Your task to perform on an android device: toggle location history Image 0: 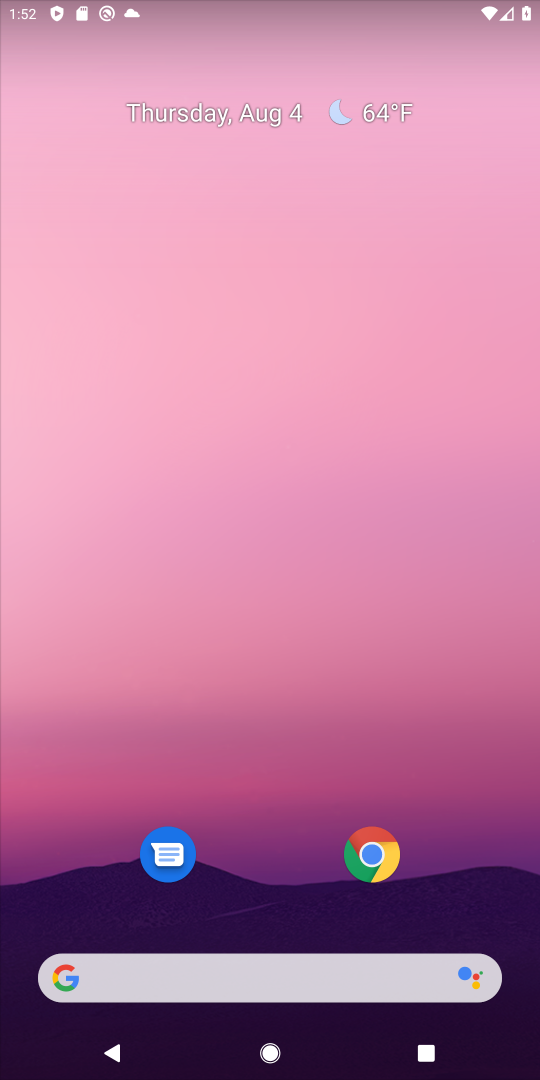
Step 0: drag from (375, 731) to (395, 311)
Your task to perform on an android device: toggle location history Image 1: 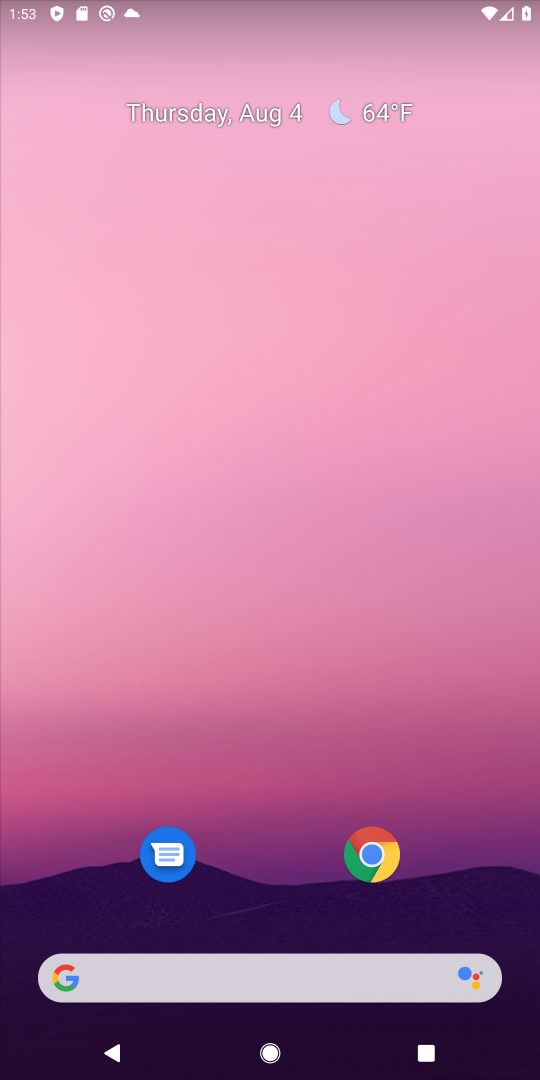
Step 1: click (375, 855)
Your task to perform on an android device: toggle location history Image 2: 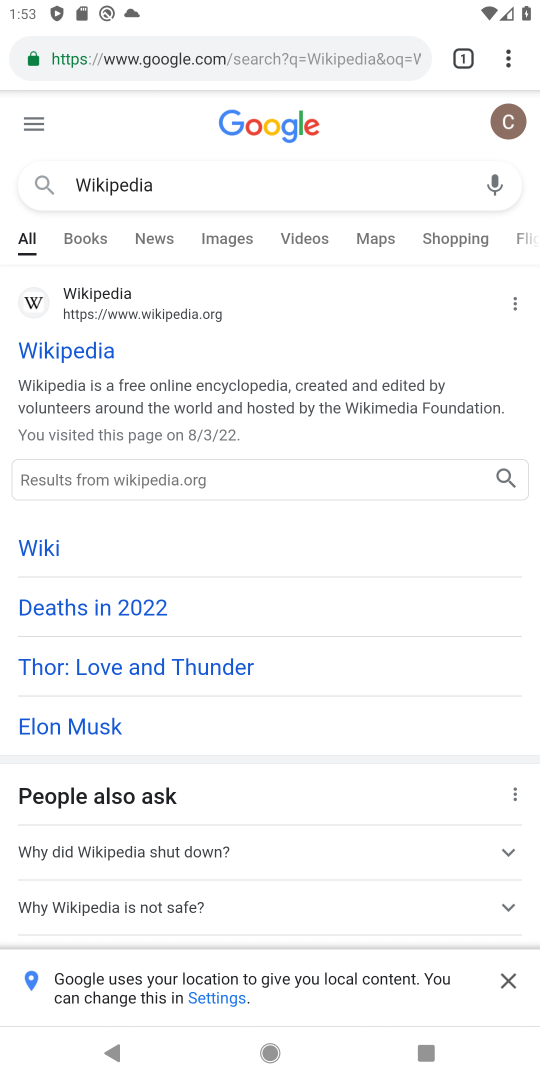
Step 2: press home button
Your task to perform on an android device: toggle location history Image 3: 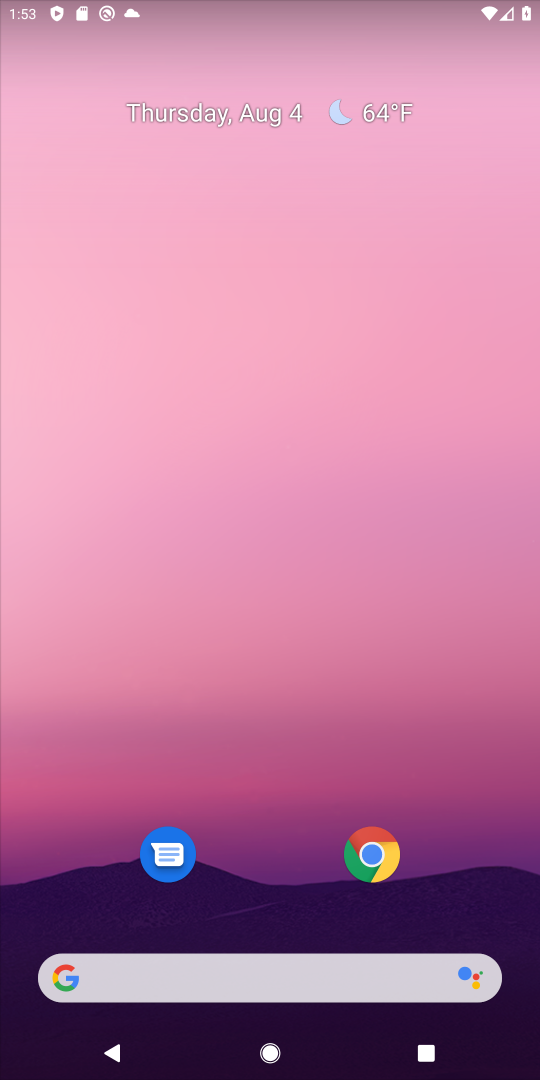
Step 3: drag from (378, 765) to (382, 307)
Your task to perform on an android device: toggle location history Image 4: 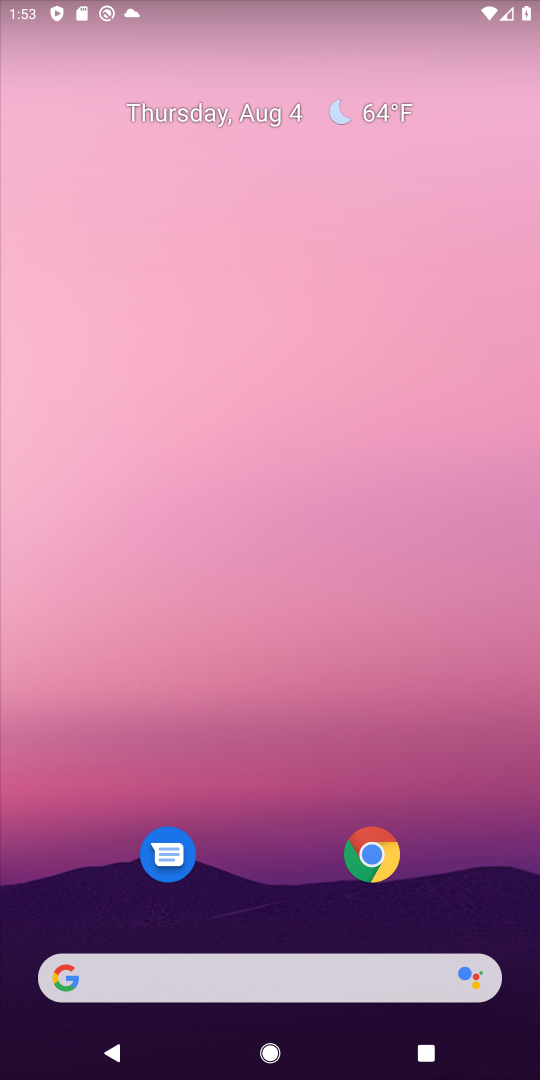
Step 4: drag from (279, 669) to (286, 143)
Your task to perform on an android device: toggle location history Image 5: 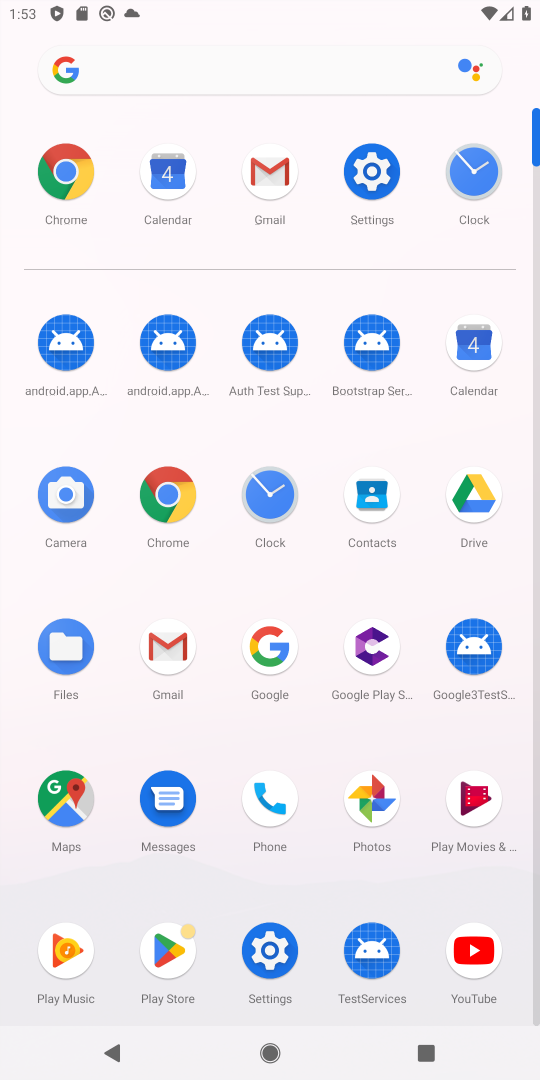
Step 5: click (375, 182)
Your task to perform on an android device: toggle location history Image 6: 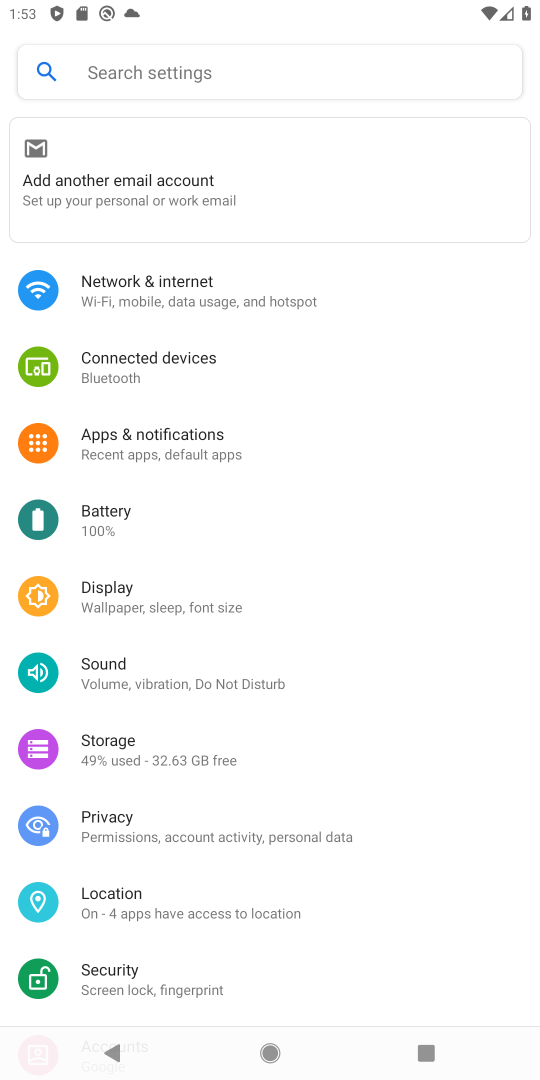
Step 6: click (263, 909)
Your task to perform on an android device: toggle location history Image 7: 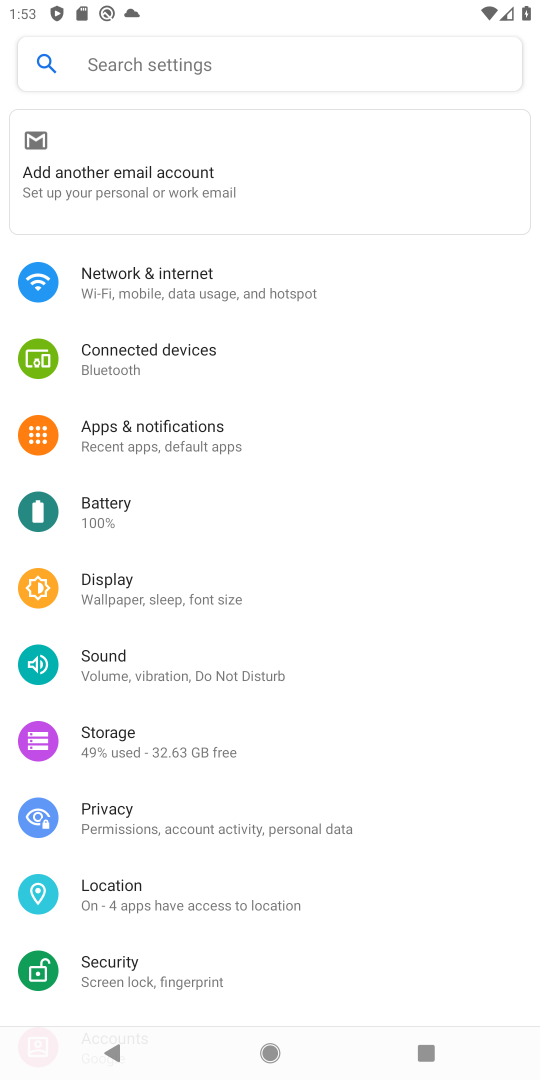
Step 7: click (238, 893)
Your task to perform on an android device: toggle location history Image 8: 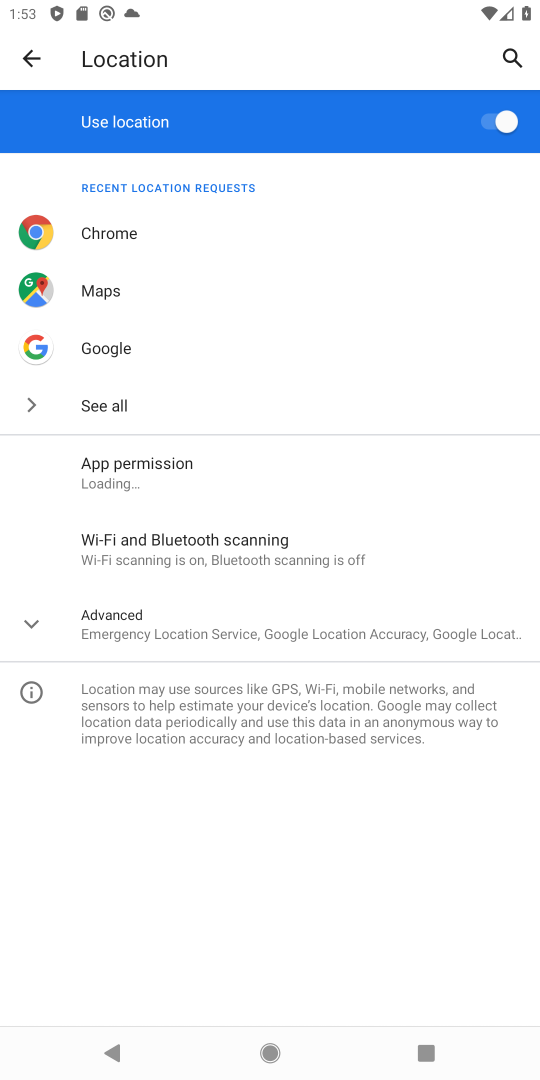
Step 8: task complete